Your task to perform on an android device: Open battery settings Image 0: 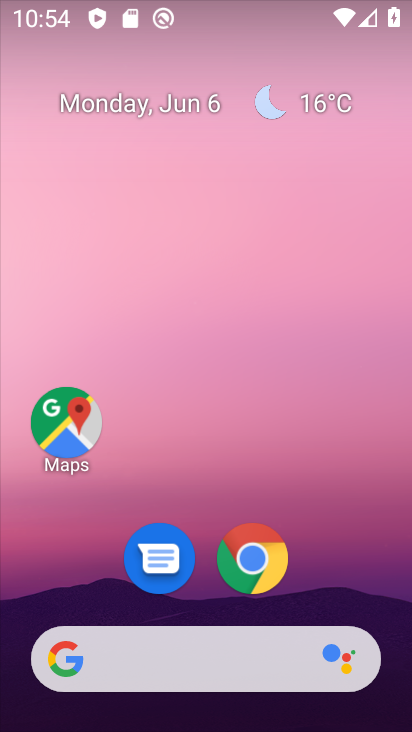
Step 0: drag from (74, 603) to (145, 133)
Your task to perform on an android device: Open battery settings Image 1: 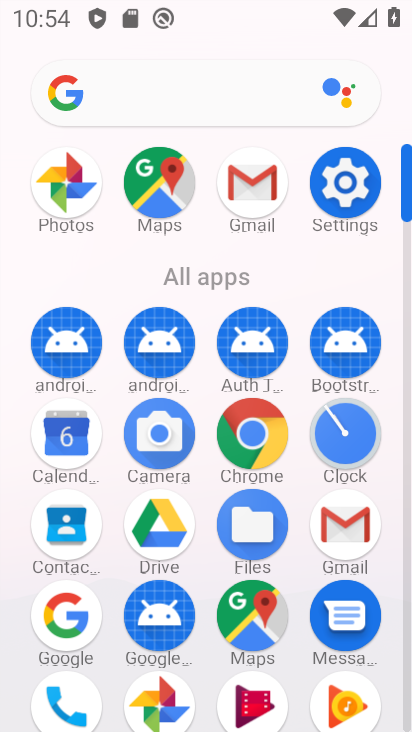
Step 1: drag from (211, 614) to (274, 352)
Your task to perform on an android device: Open battery settings Image 2: 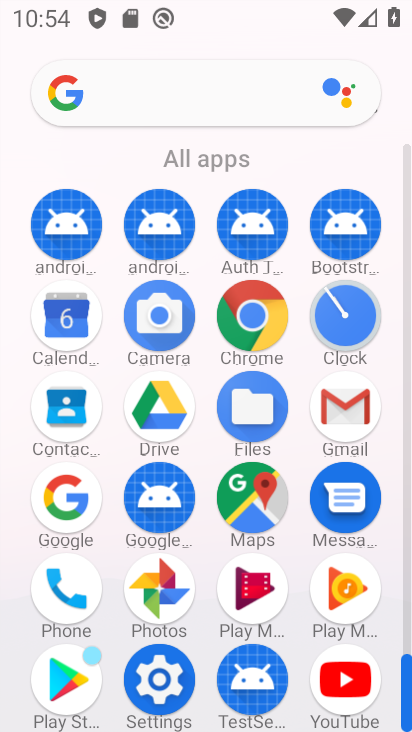
Step 2: click (161, 684)
Your task to perform on an android device: Open battery settings Image 3: 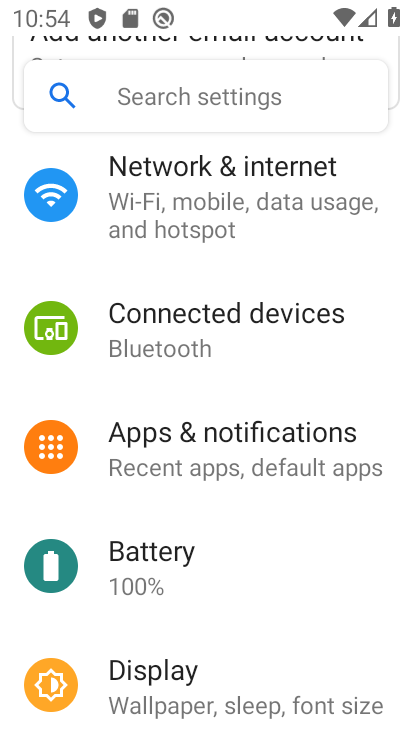
Step 3: click (207, 595)
Your task to perform on an android device: Open battery settings Image 4: 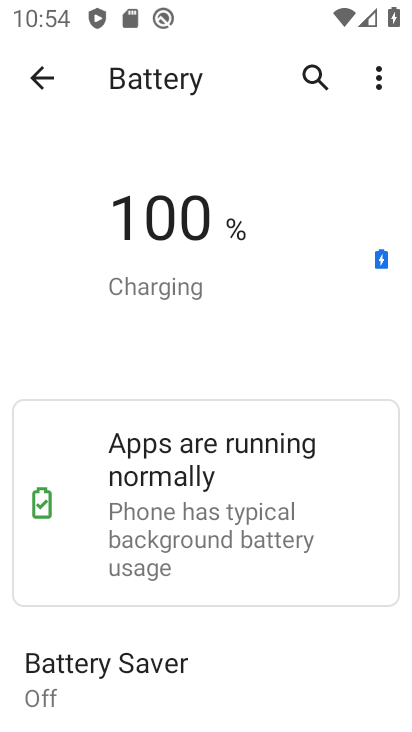
Step 4: task complete